Your task to perform on an android device: turn off sleep mode Image 0: 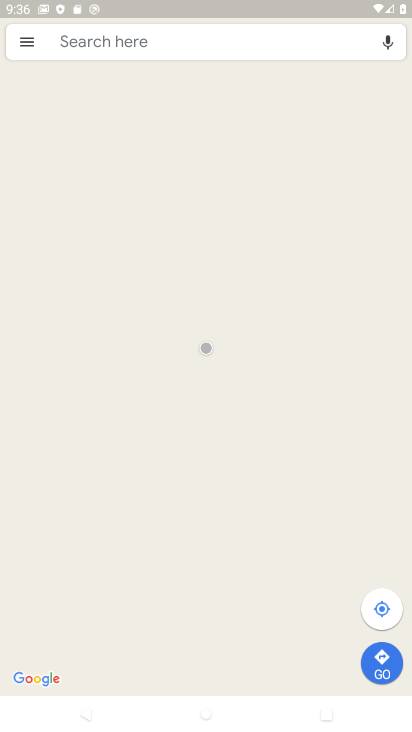
Step 0: press home button
Your task to perform on an android device: turn off sleep mode Image 1: 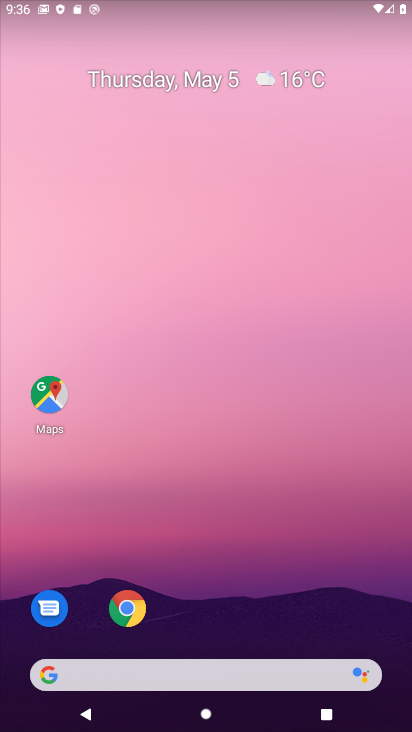
Step 1: drag from (241, 612) to (178, 36)
Your task to perform on an android device: turn off sleep mode Image 2: 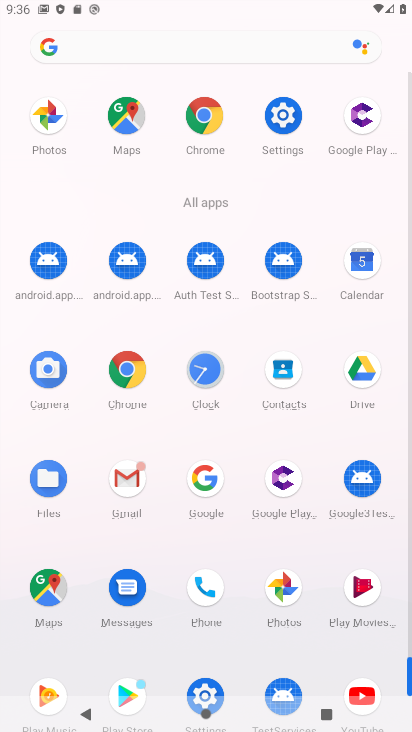
Step 2: drag from (234, 654) to (229, 352)
Your task to perform on an android device: turn off sleep mode Image 3: 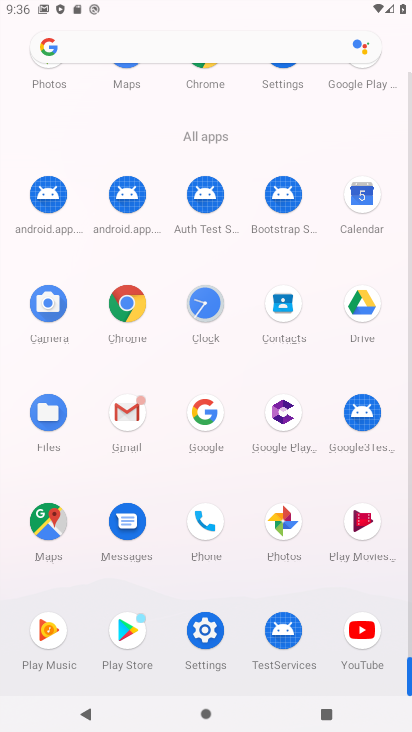
Step 3: click (206, 628)
Your task to perform on an android device: turn off sleep mode Image 4: 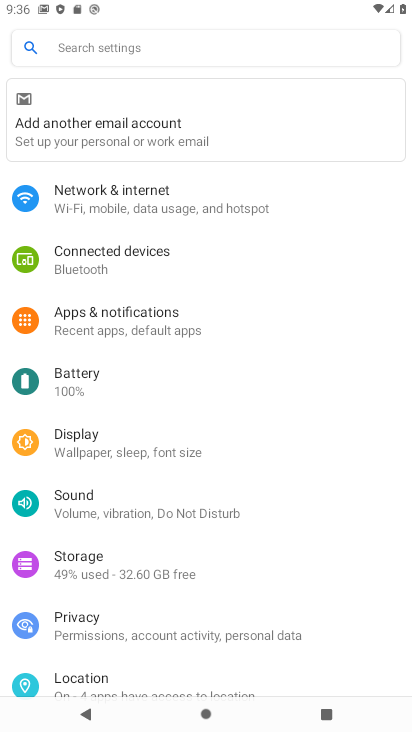
Step 4: click (113, 448)
Your task to perform on an android device: turn off sleep mode Image 5: 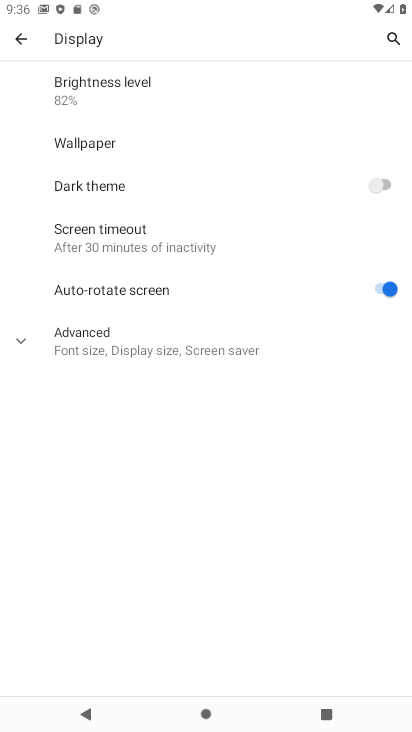
Step 5: task complete